Your task to perform on an android device: open a bookmark in the chrome app Image 0: 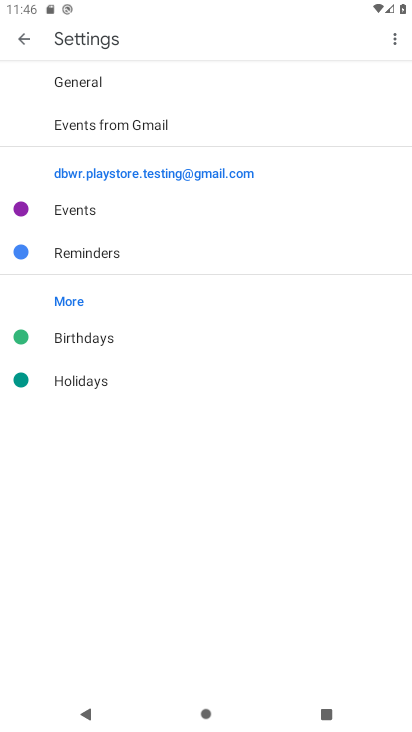
Step 0: press back button
Your task to perform on an android device: open a bookmark in the chrome app Image 1: 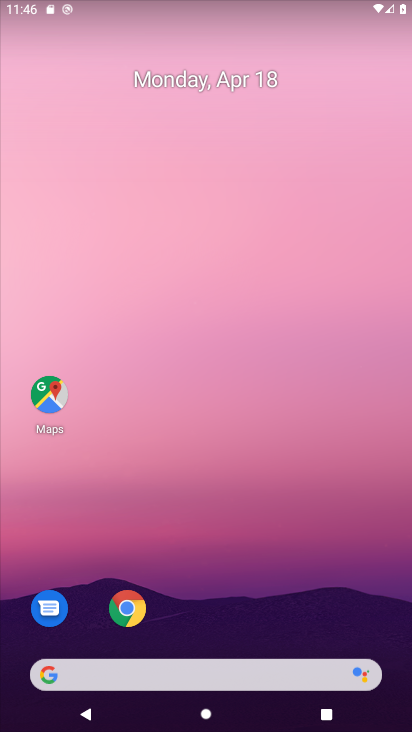
Step 1: drag from (185, 634) to (294, 34)
Your task to perform on an android device: open a bookmark in the chrome app Image 2: 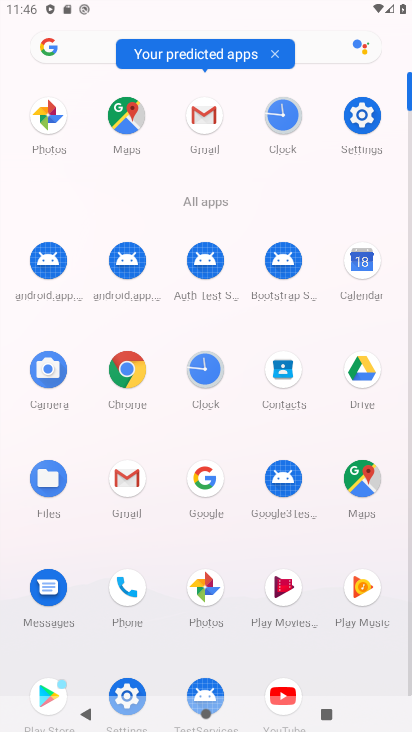
Step 2: click (121, 381)
Your task to perform on an android device: open a bookmark in the chrome app Image 3: 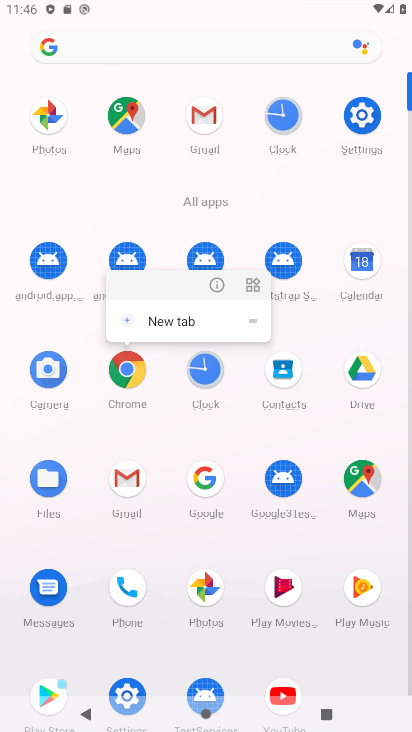
Step 3: click (126, 376)
Your task to perform on an android device: open a bookmark in the chrome app Image 4: 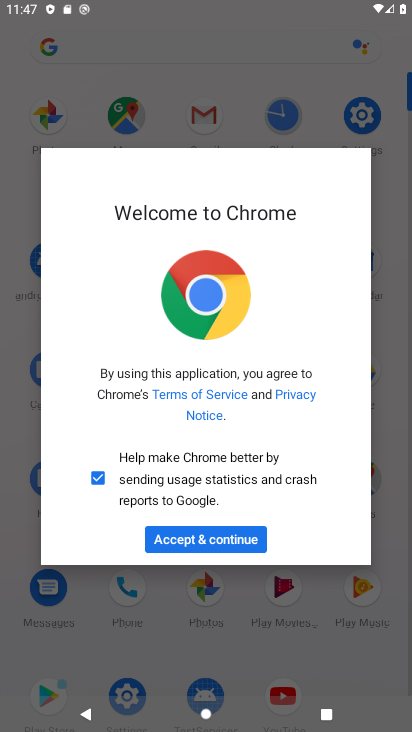
Step 4: click (205, 555)
Your task to perform on an android device: open a bookmark in the chrome app Image 5: 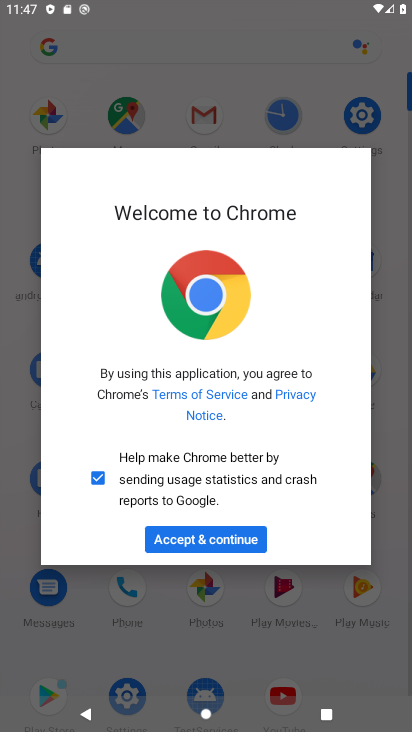
Step 5: click (218, 546)
Your task to perform on an android device: open a bookmark in the chrome app Image 6: 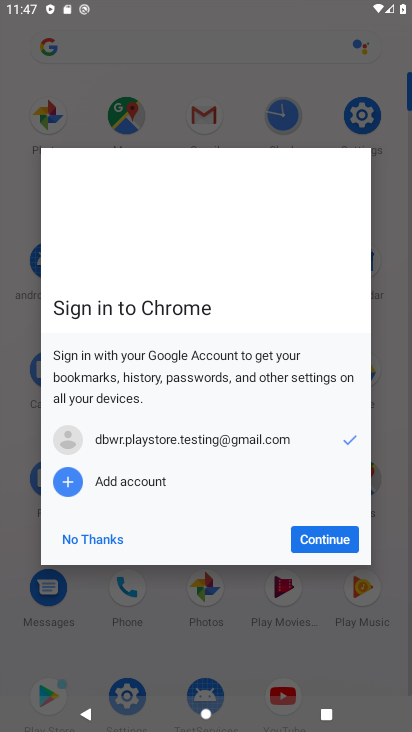
Step 6: click (343, 544)
Your task to perform on an android device: open a bookmark in the chrome app Image 7: 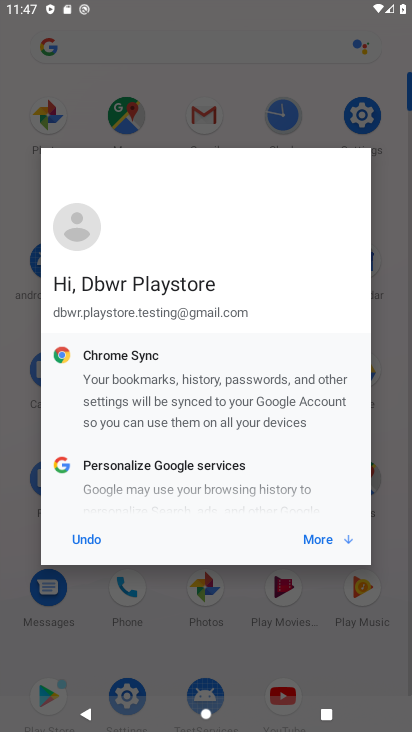
Step 7: click (335, 545)
Your task to perform on an android device: open a bookmark in the chrome app Image 8: 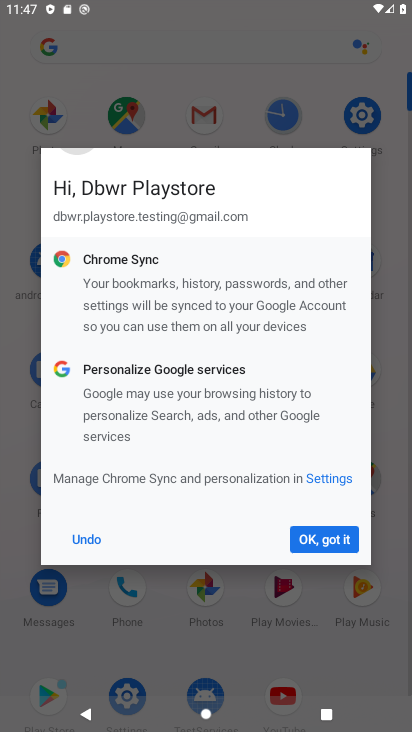
Step 8: click (332, 544)
Your task to perform on an android device: open a bookmark in the chrome app Image 9: 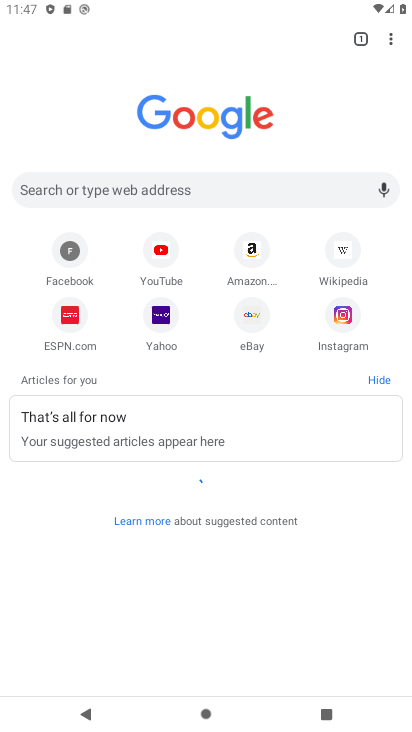
Step 9: click (391, 39)
Your task to perform on an android device: open a bookmark in the chrome app Image 10: 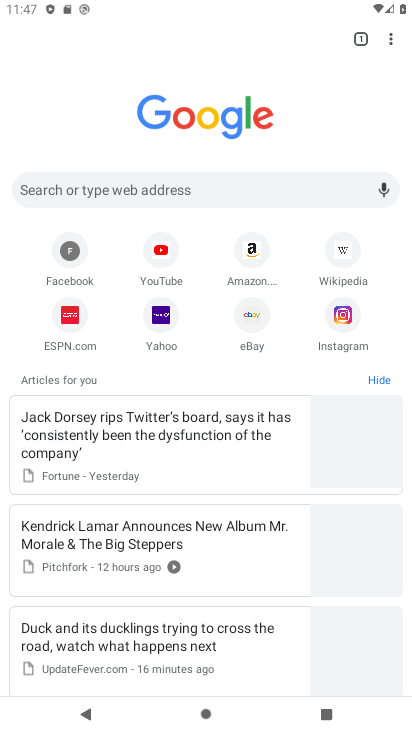
Step 10: task complete